Your task to perform on an android device: turn off wifi Image 0: 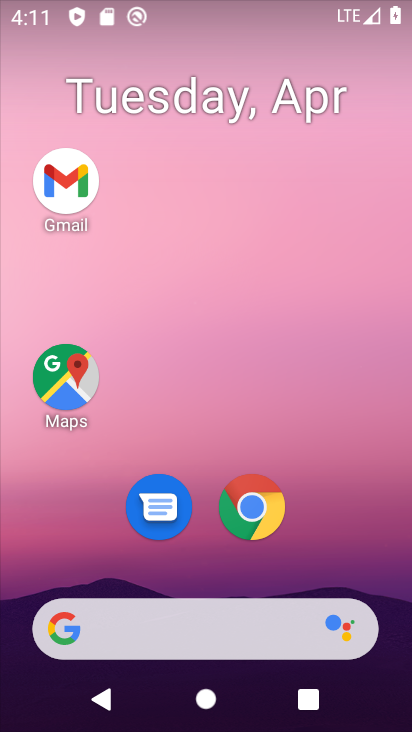
Step 0: drag from (219, 468) to (262, 117)
Your task to perform on an android device: turn off wifi Image 1: 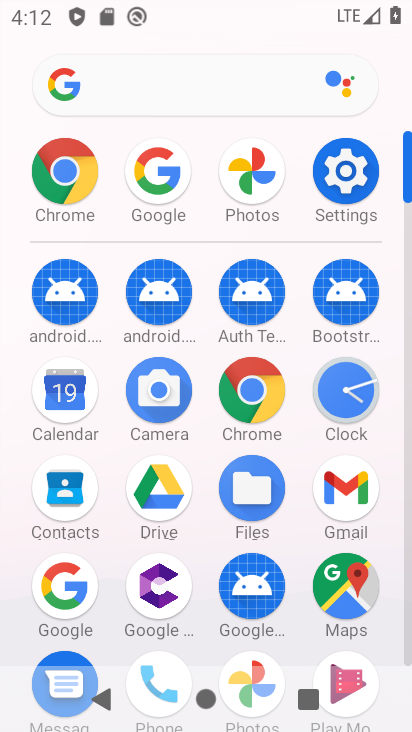
Step 1: click (343, 173)
Your task to perform on an android device: turn off wifi Image 2: 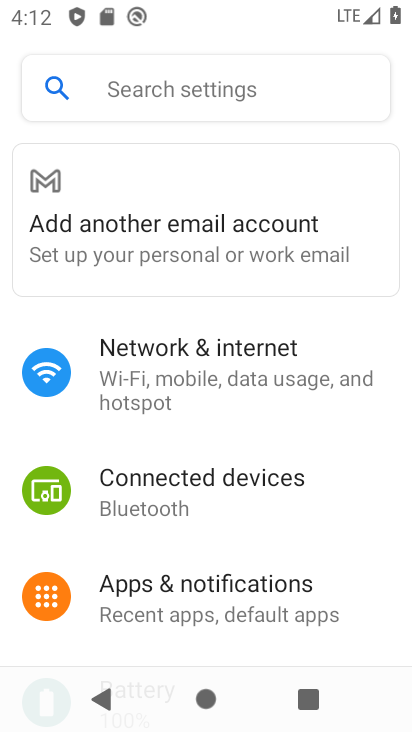
Step 2: click (256, 359)
Your task to perform on an android device: turn off wifi Image 3: 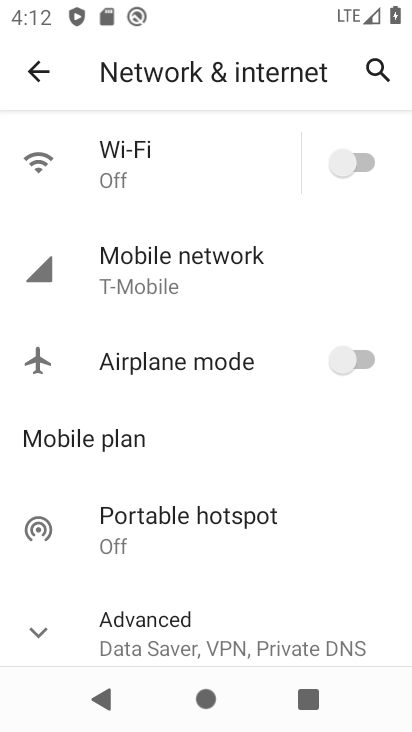
Step 3: task complete